Your task to perform on an android device: Open ESPN.com Image 0: 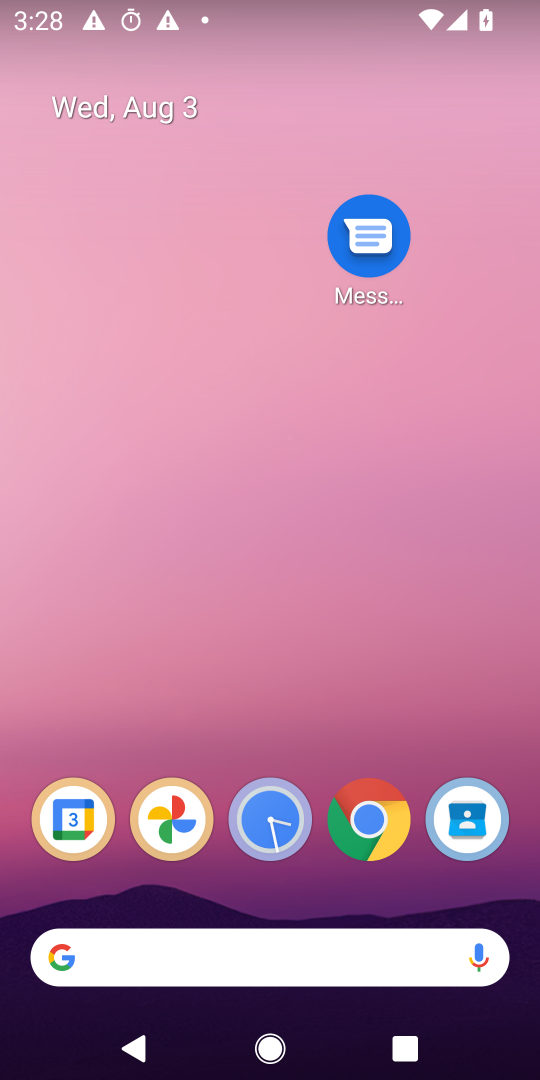
Step 0: click (154, 957)
Your task to perform on an android device: Open ESPN.com Image 1: 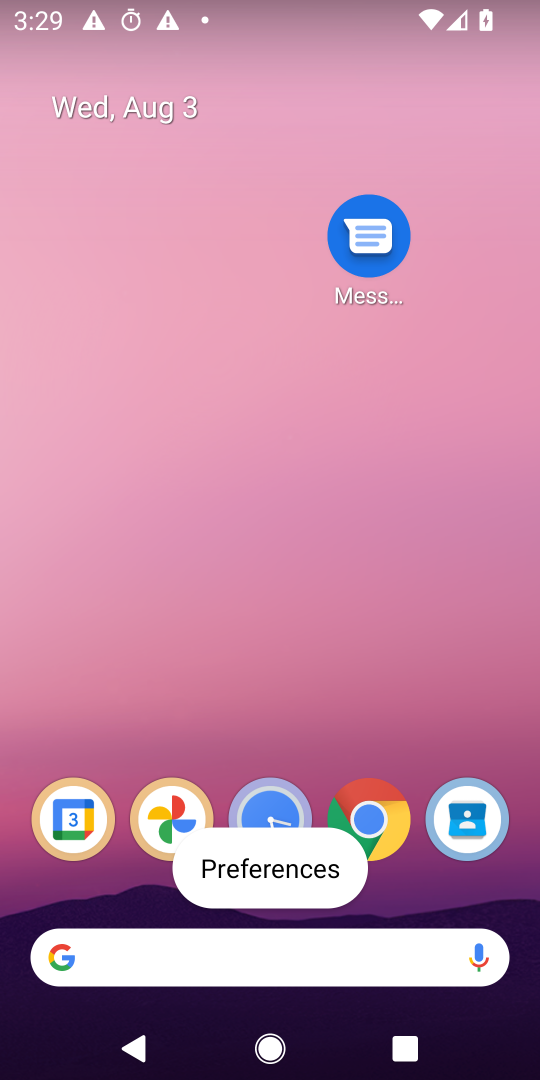
Step 1: click (143, 974)
Your task to perform on an android device: Open ESPN.com Image 2: 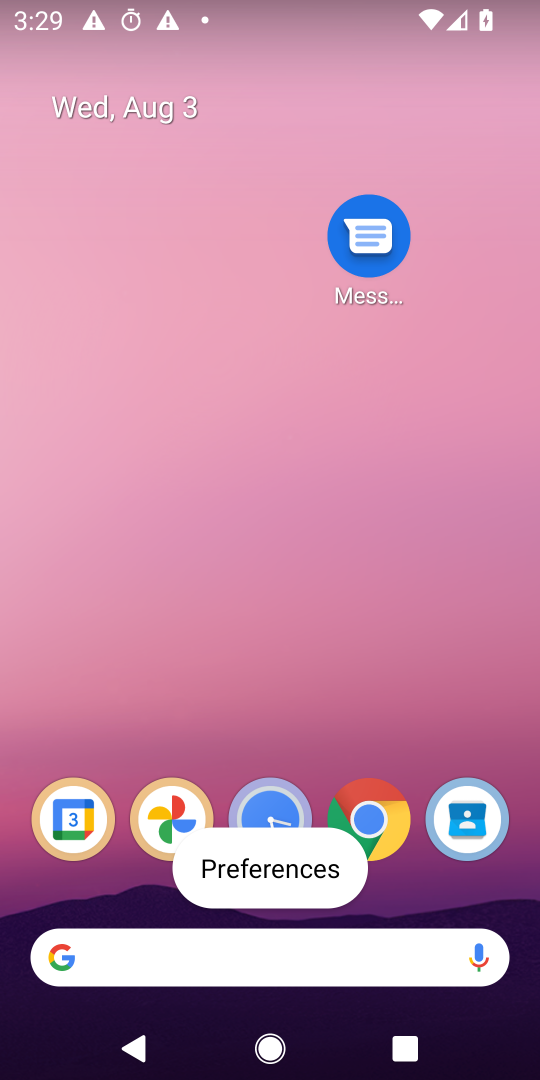
Step 2: click (125, 975)
Your task to perform on an android device: Open ESPN.com Image 3: 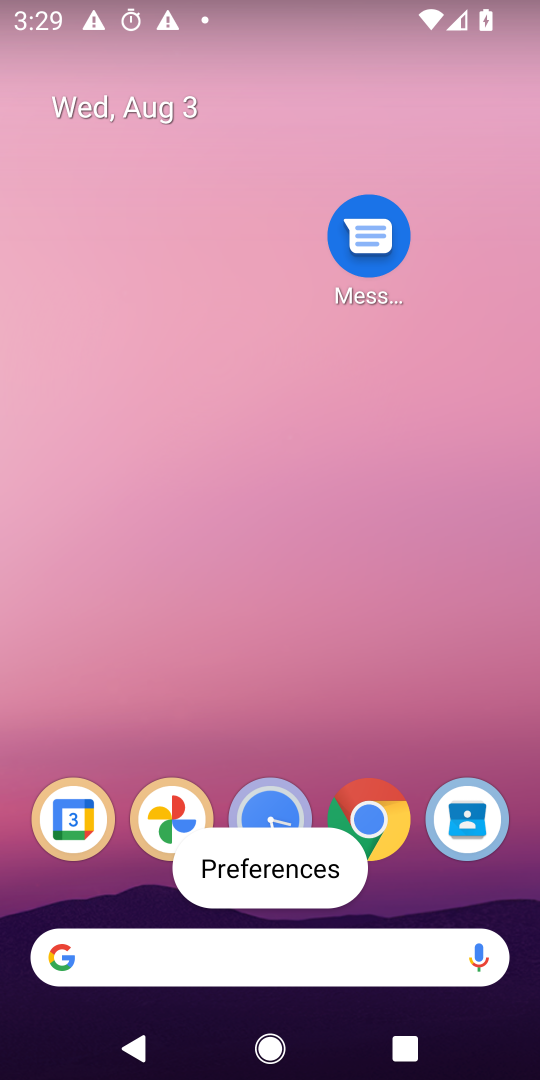
Step 3: click (123, 973)
Your task to perform on an android device: Open ESPN.com Image 4: 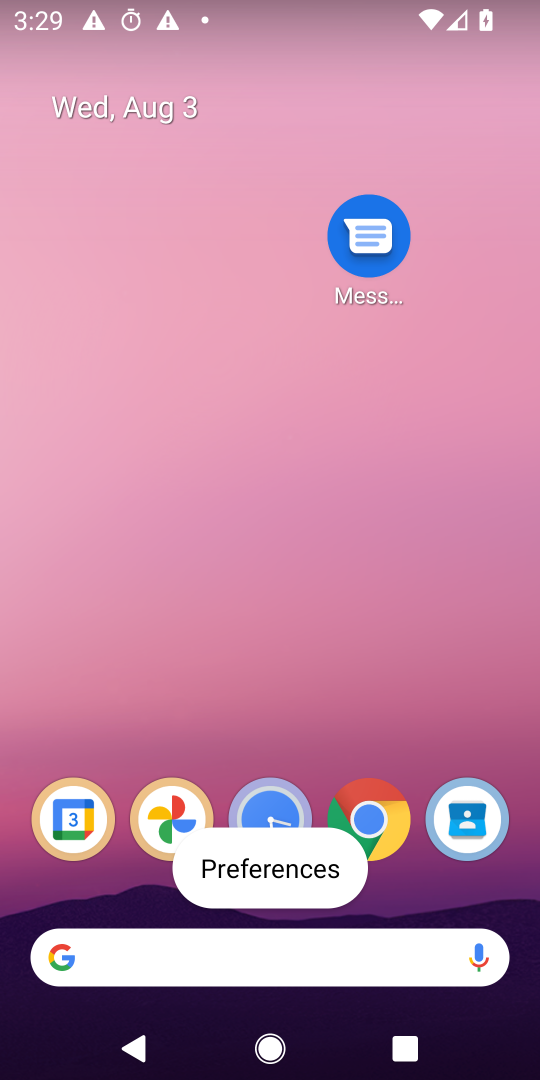
Step 4: click (185, 947)
Your task to perform on an android device: Open ESPN.com Image 5: 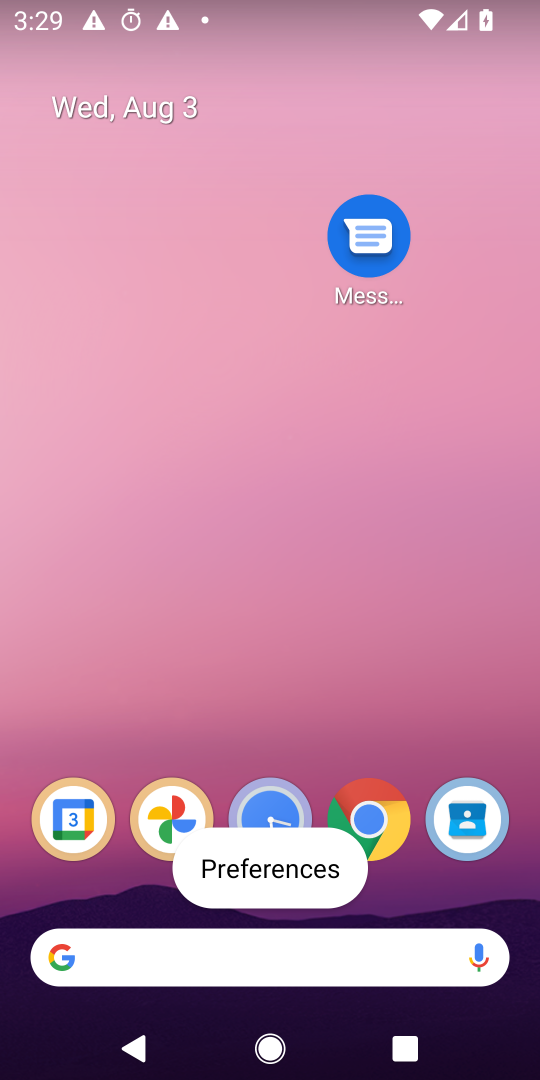
Step 5: click (170, 955)
Your task to perform on an android device: Open ESPN.com Image 6: 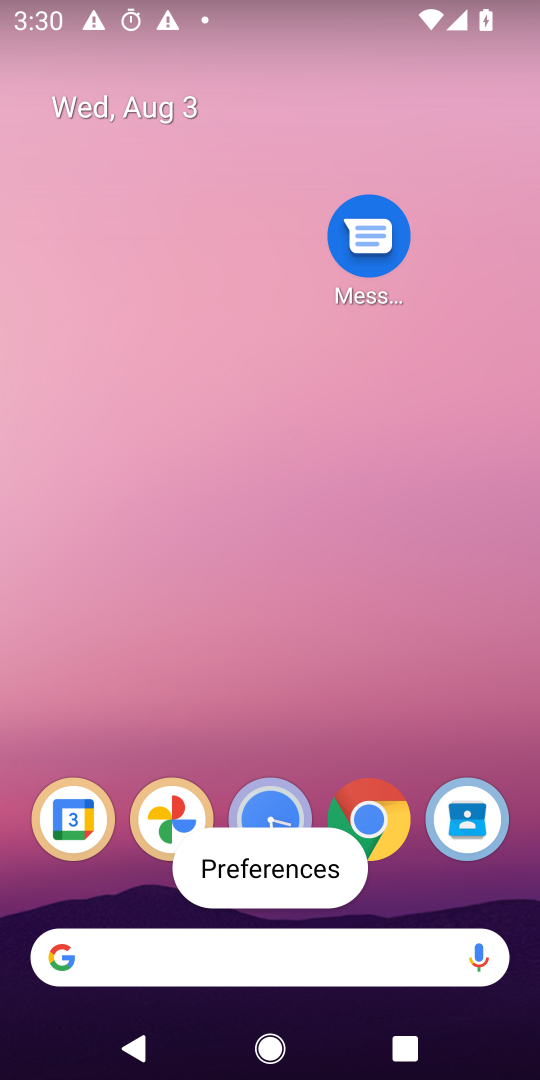
Step 6: click (122, 963)
Your task to perform on an android device: Open ESPN.com Image 7: 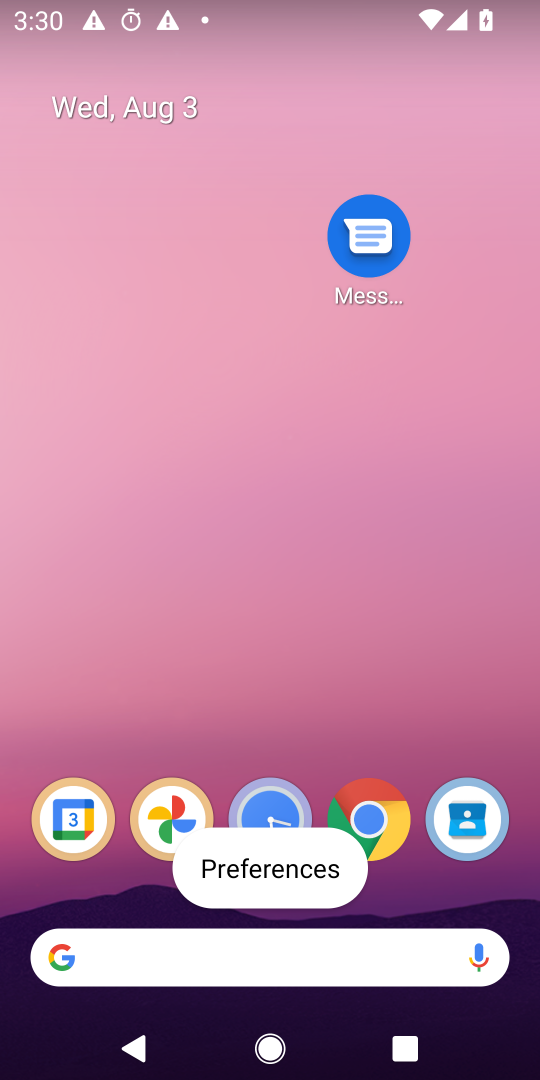
Step 7: click (121, 964)
Your task to perform on an android device: Open ESPN.com Image 8: 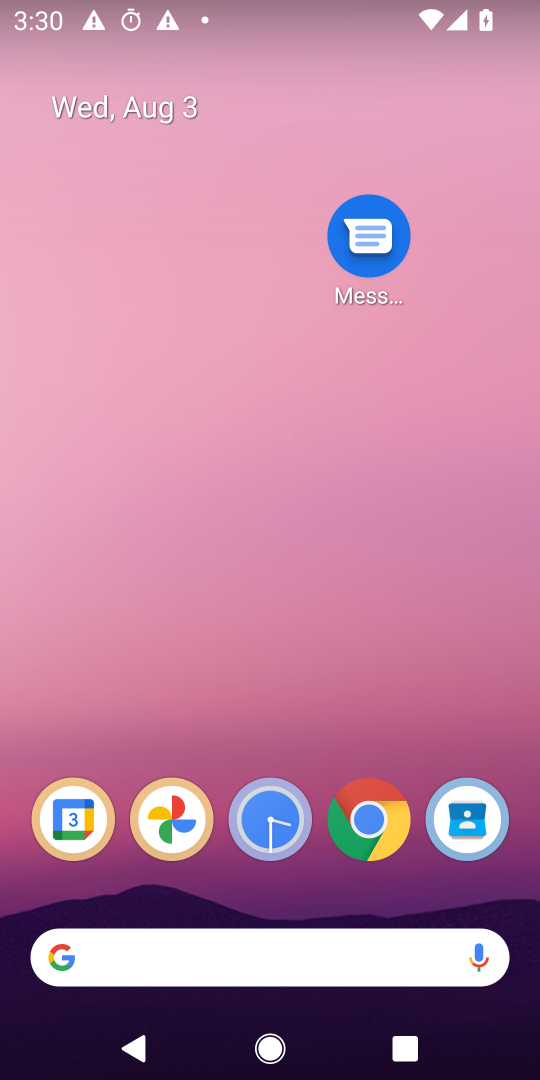
Step 8: click (158, 957)
Your task to perform on an android device: Open ESPN.com Image 9: 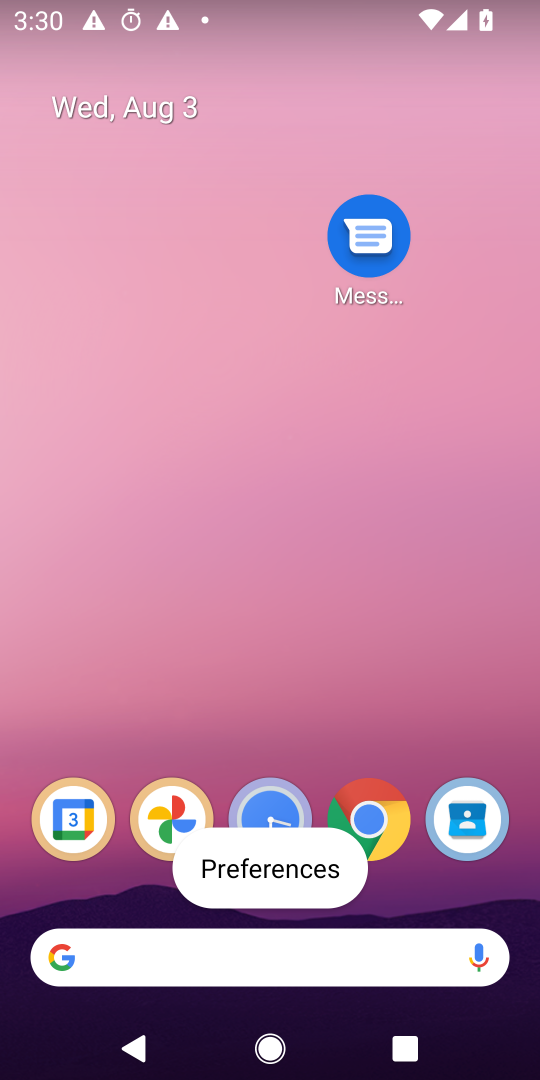
Step 9: task complete